Your task to perform on an android device: change the clock style Image 0: 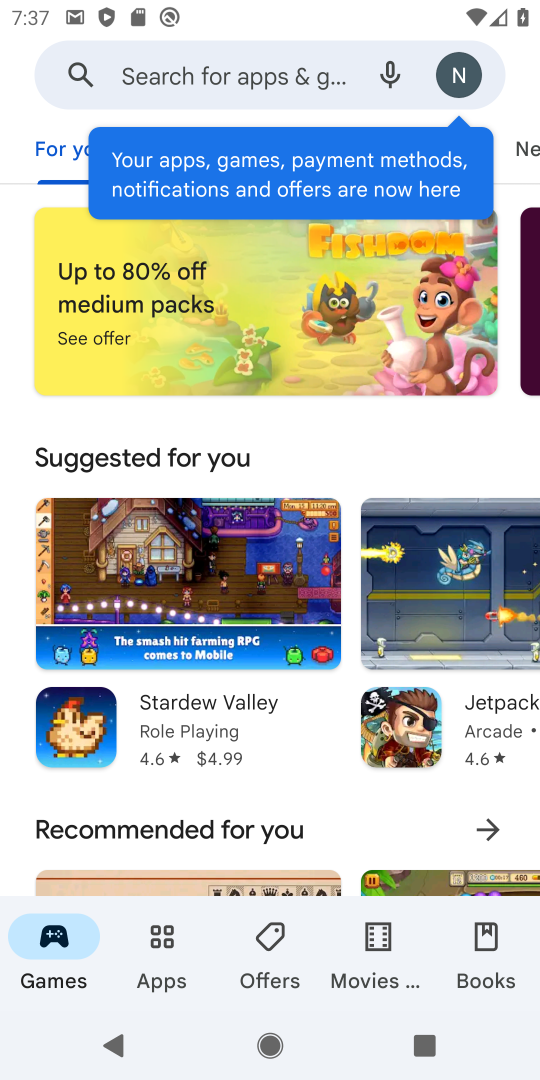
Step 0: press home button
Your task to perform on an android device: change the clock style Image 1: 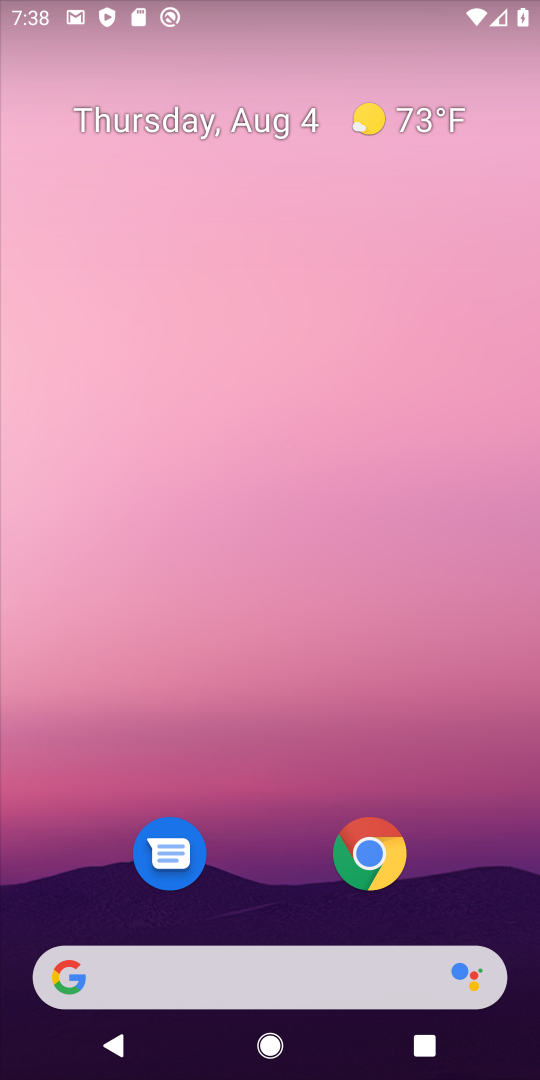
Step 1: drag from (281, 931) to (281, 340)
Your task to perform on an android device: change the clock style Image 2: 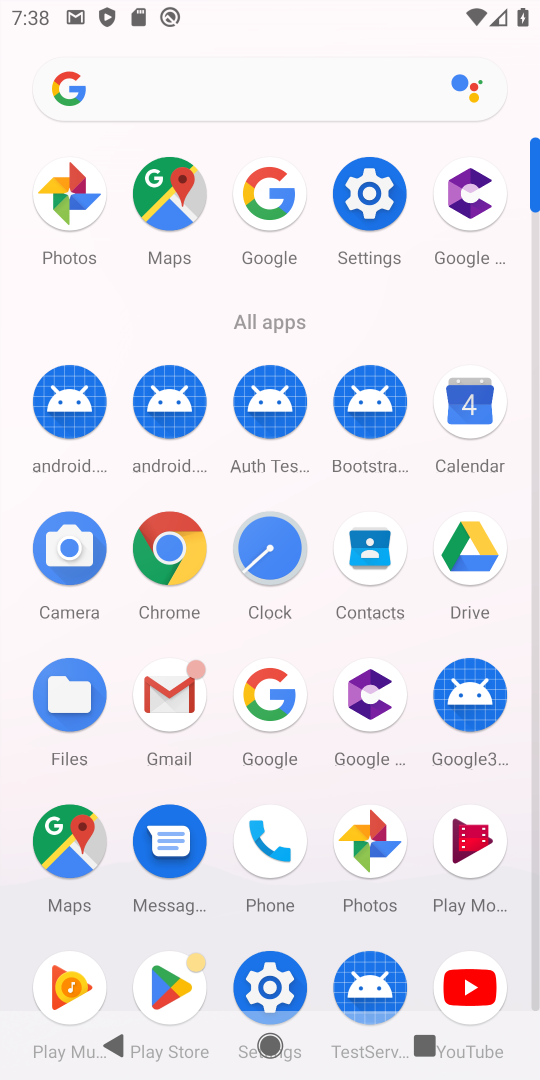
Step 2: click (282, 552)
Your task to perform on an android device: change the clock style Image 3: 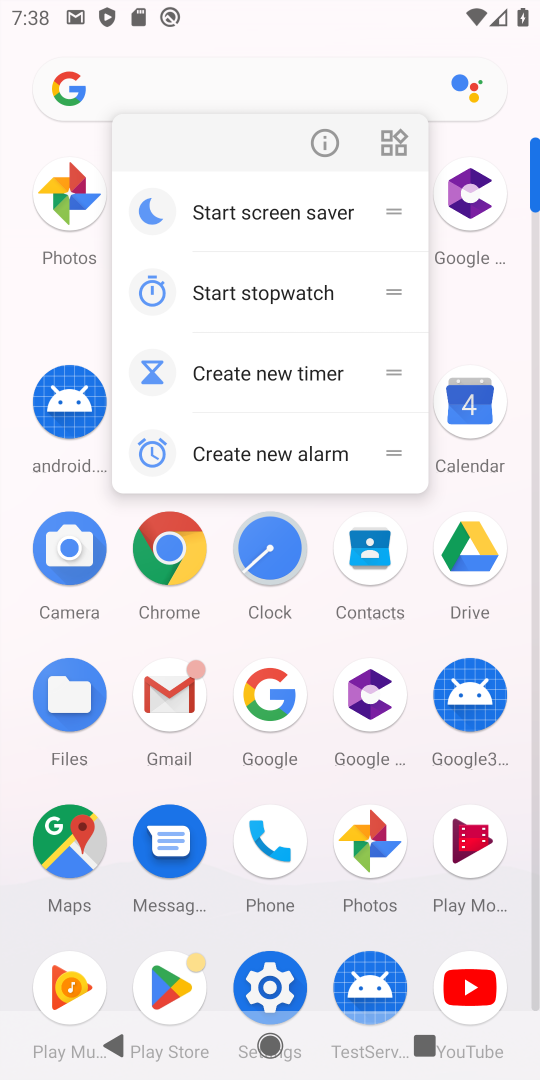
Step 3: click (275, 571)
Your task to perform on an android device: change the clock style Image 4: 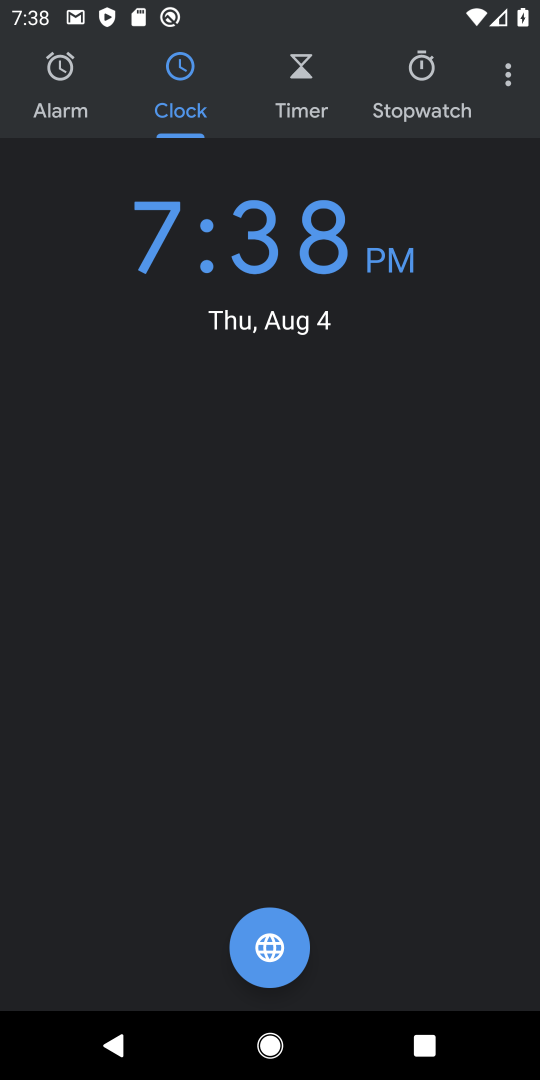
Step 4: click (509, 73)
Your task to perform on an android device: change the clock style Image 5: 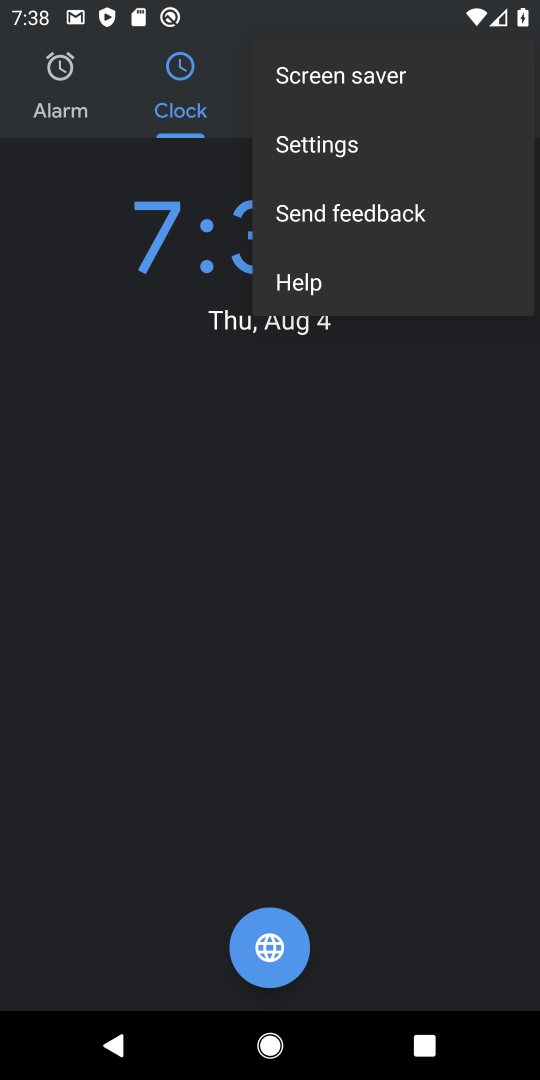
Step 5: click (315, 158)
Your task to perform on an android device: change the clock style Image 6: 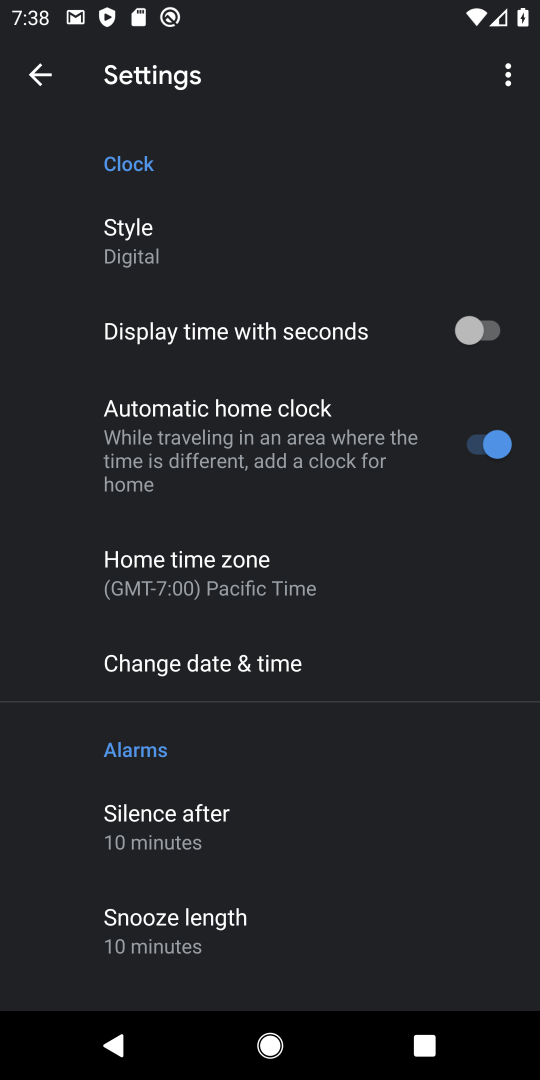
Step 6: click (135, 237)
Your task to perform on an android device: change the clock style Image 7: 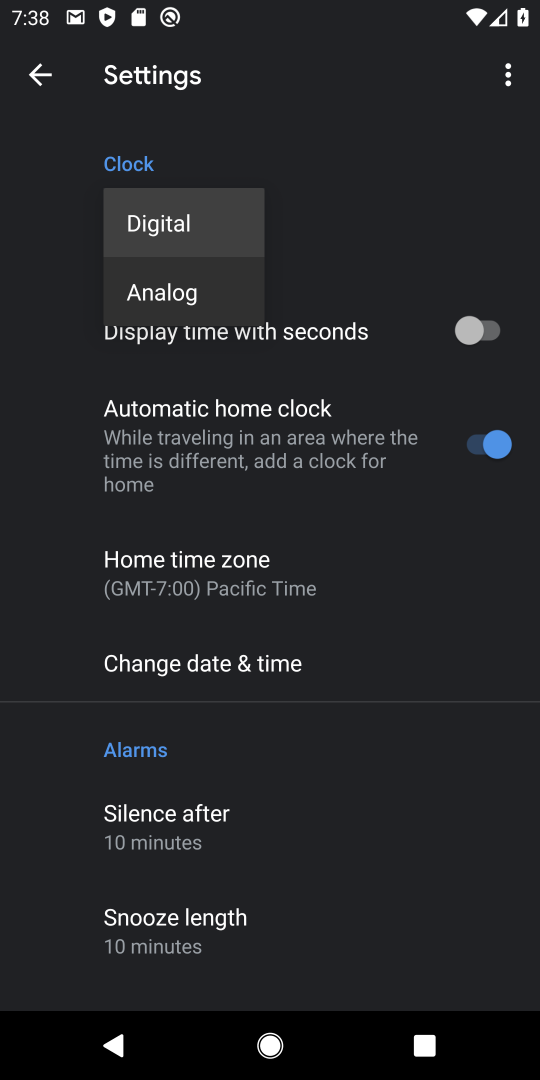
Step 7: click (155, 284)
Your task to perform on an android device: change the clock style Image 8: 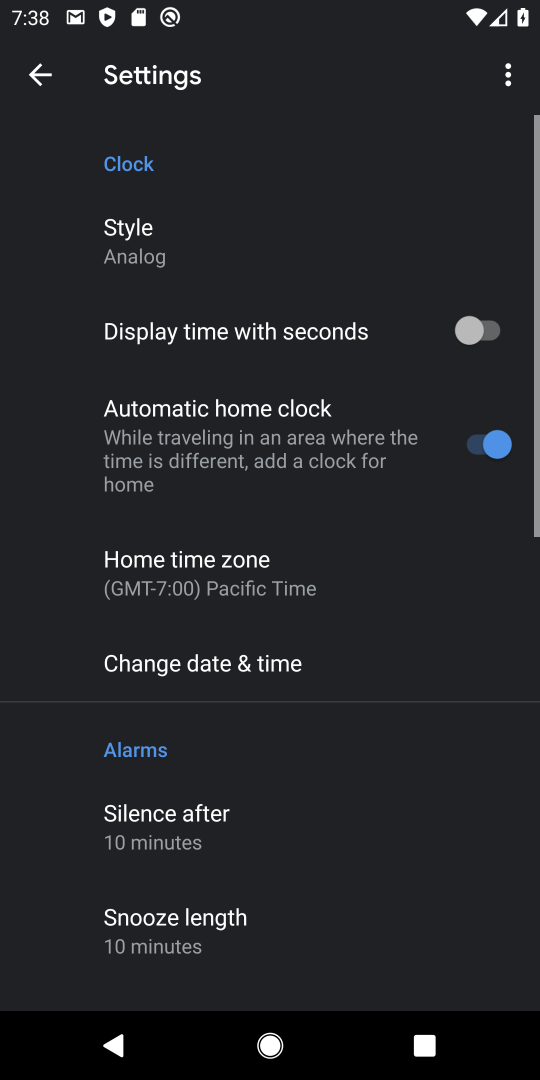
Step 8: task complete